Your task to perform on an android device: What's on my calendar tomorrow? Image 0: 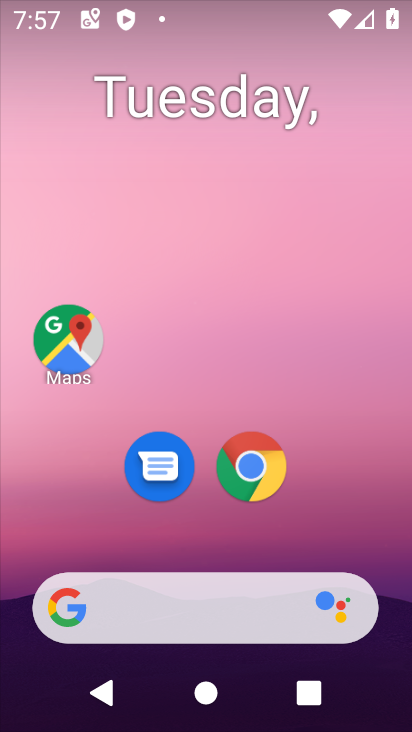
Step 0: drag from (354, 501) to (340, 68)
Your task to perform on an android device: What's on my calendar tomorrow? Image 1: 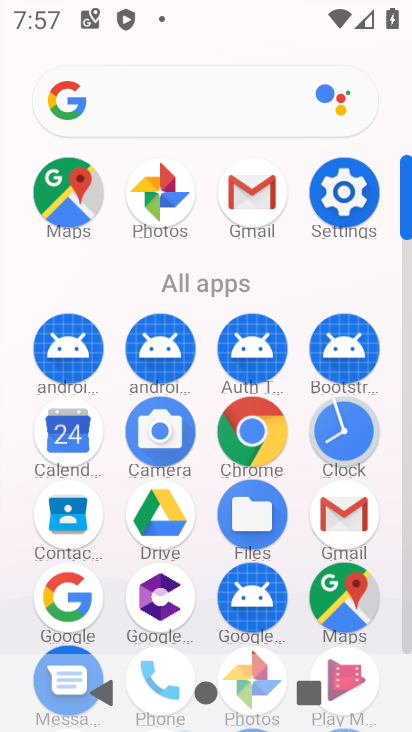
Step 1: click (79, 443)
Your task to perform on an android device: What's on my calendar tomorrow? Image 2: 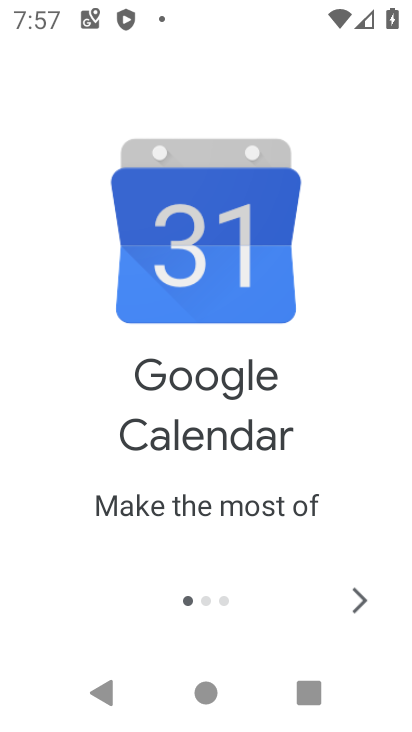
Step 2: click (79, 443)
Your task to perform on an android device: What's on my calendar tomorrow? Image 3: 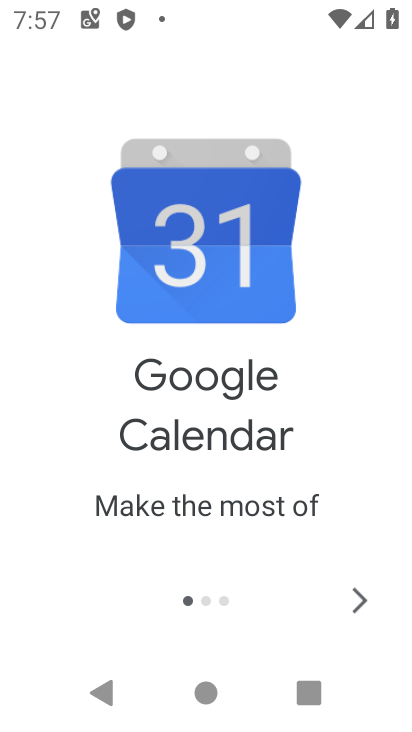
Step 3: click (366, 609)
Your task to perform on an android device: What's on my calendar tomorrow? Image 4: 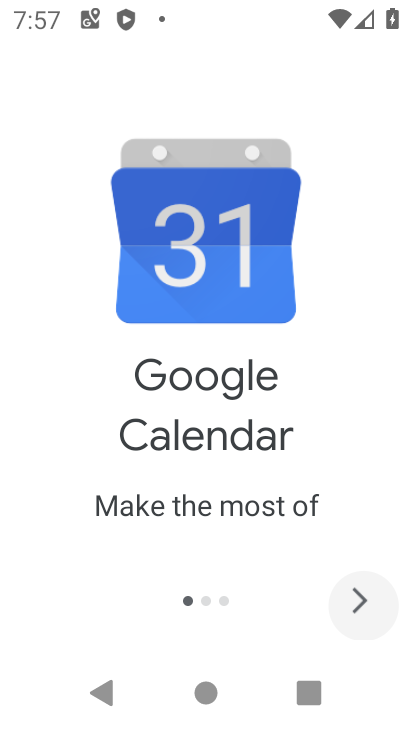
Step 4: click (366, 609)
Your task to perform on an android device: What's on my calendar tomorrow? Image 5: 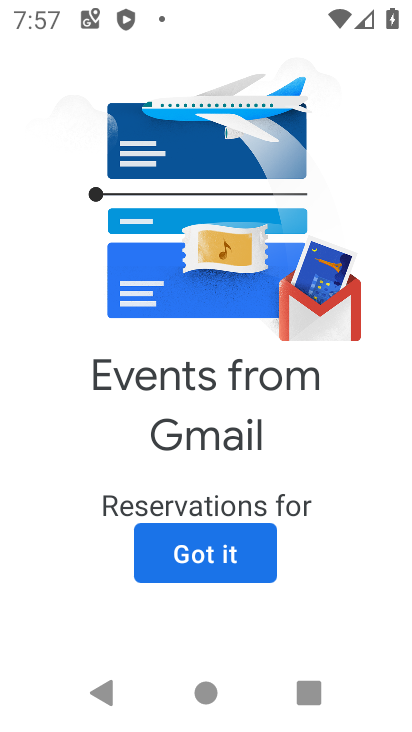
Step 5: click (366, 609)
Your task to perform on an android device: What's on my calendar tomorrow? Image 6: 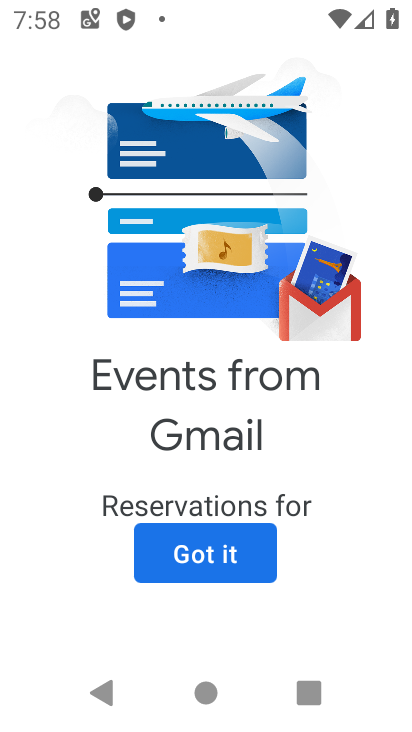
Step 6: click (366, 609)
Your task to perform on an android device: What's on my calendar tomorrow? Image 7: 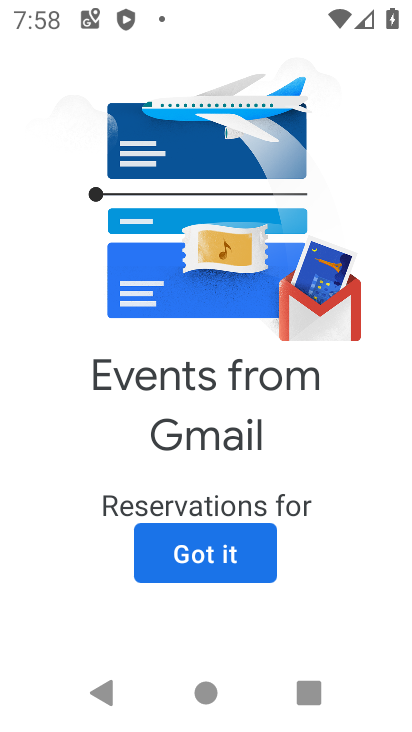
Step 7: click (255, 573)
Your task to perform on an android device: What's on my calendar tomorrow? Image 8: 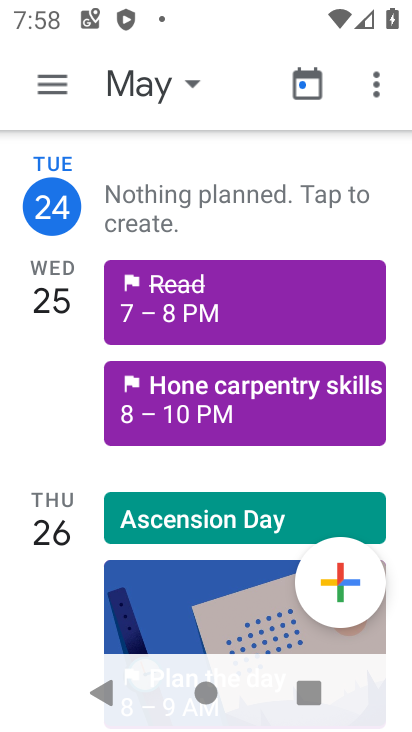
Step 8: task complete